Your task to perform on an android device: Search for pizza restaurants on Maps Image 0: 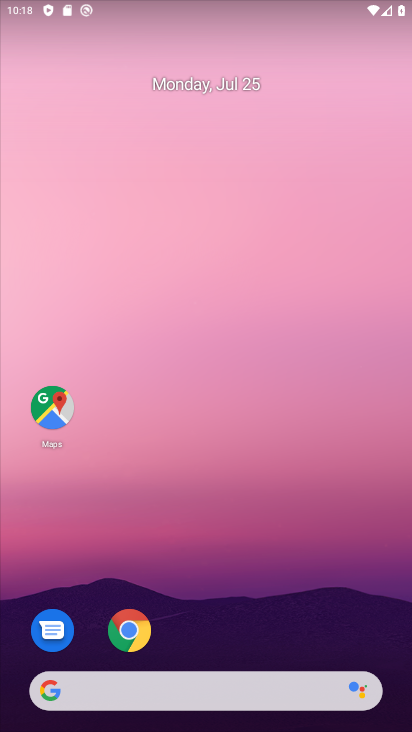
Step 0: click (55, 409)
Your task to perform on an android device: Search for pizza restaurants on Maps Image 1: 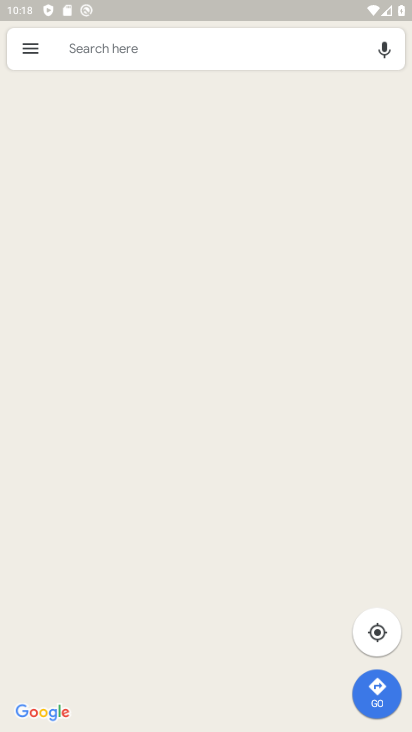
Step 1: click (211, 55)
Your task to perform on an android device: Search for pizza restaurants on Maps Image 2: 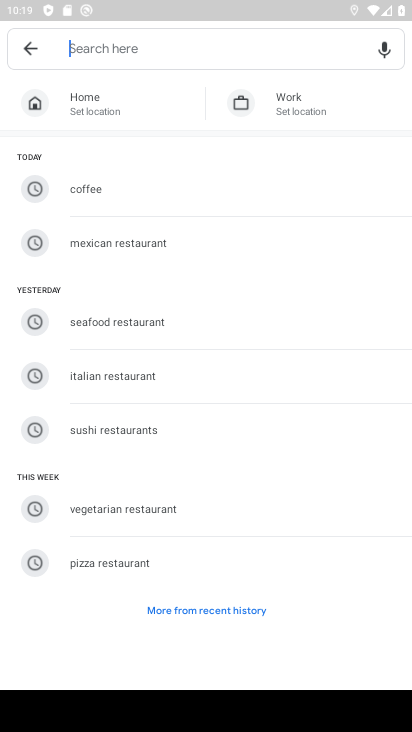
Step 2: type "pizza restaurants"
Your task to perform on an android device: Search for pizza restaurants on Maps Image 3: 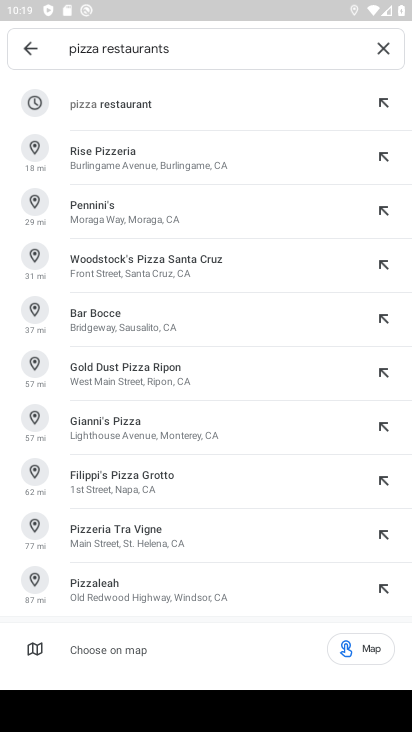
Step 3: click (253, 104)
Your task to perform on an android device: Search for pizza restaurants on Maps Image 4: 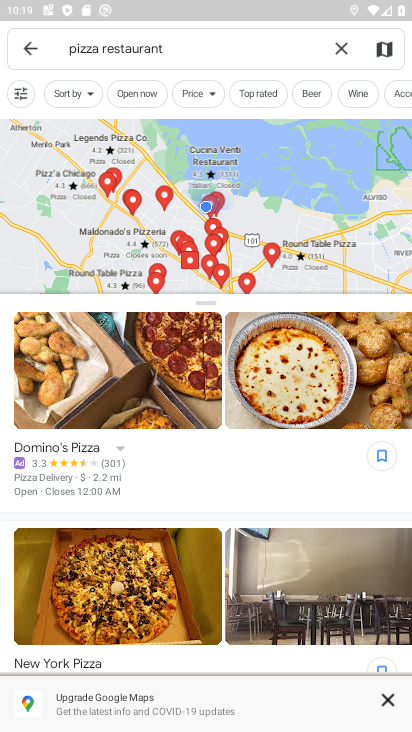
Step 4: task complete